Your task to perform on an android device: open app "Google Home" (install if not already installed) Image 0: 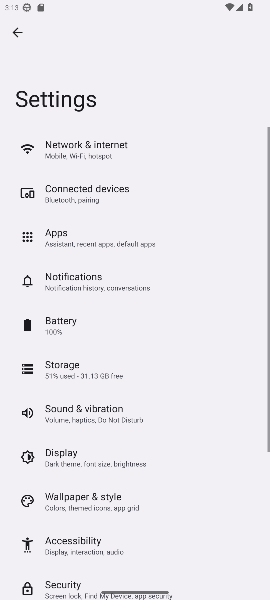
Step 0: press home button
Your task to perform on an android device: open app "Google Home" (install if not already installed) Image 1: 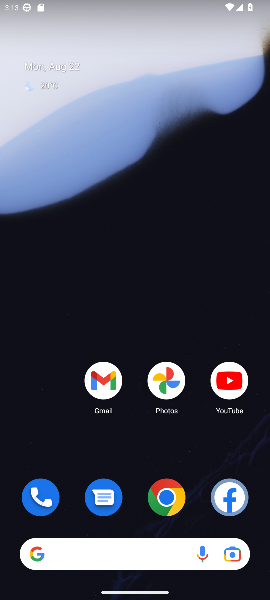
Step 1: drag from (31, 398) to (43, 109)
Your task to perform on an android device: open app "Google Home" (install if not already installed) Image 2: 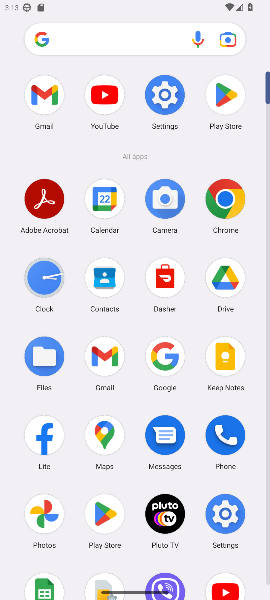
Step 2: click (224, 99)
Your task to perform on an android device: open app "Google Home" (install if not already installed) Image 3: 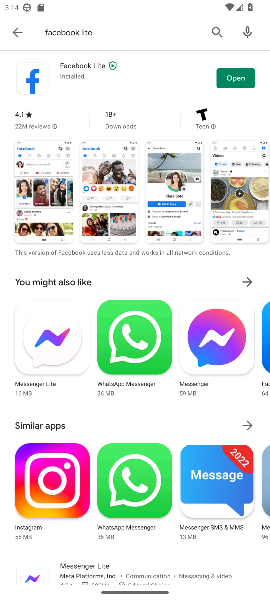
Step 3: press back button
Your task to perform on an android device: open app "Google Home" (install if not already installed) Image 4: 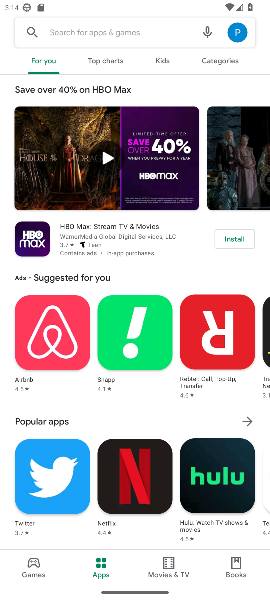
Step 4: click (143, 31)
Your task to perform on an android device: open app "Google Home" (install if not already installed) Image 5: 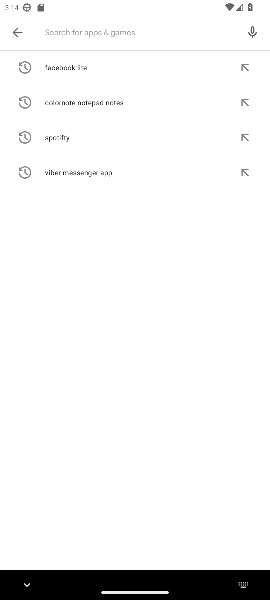
Step 5: type "google home"
Your task to perform on an android device: open app "Google Home" (install if not already installed) Image 6: 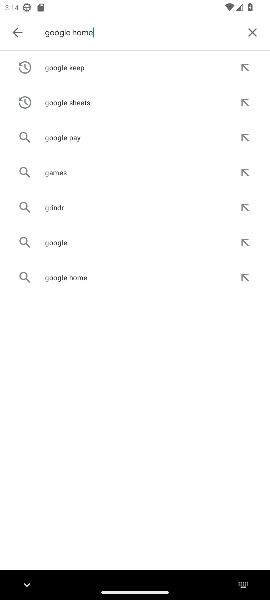
Step 6: press enter
Your task to perform on an android device: open app "Google Home" (install if not already installed) Image 7: 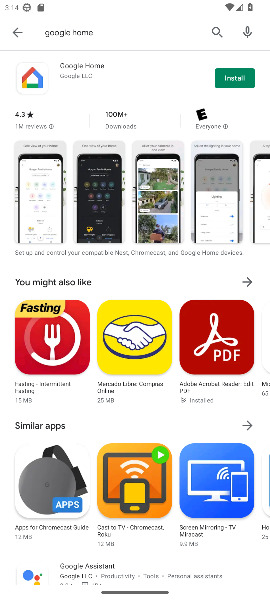
Step 7: click (248, 78)
Your task to perform on an android device: open app "Google Home" (install if not already installed) Image 8: 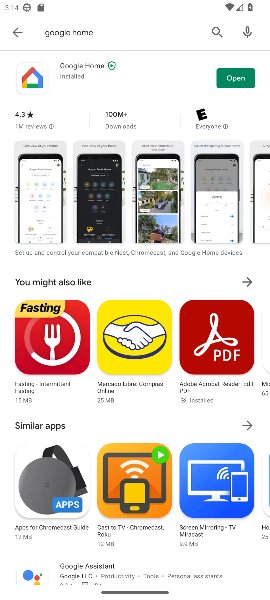
Step 8: click (235, 77)
Your task to perform on an android device: open app "Google Home" (install if not already installed) Image 9: 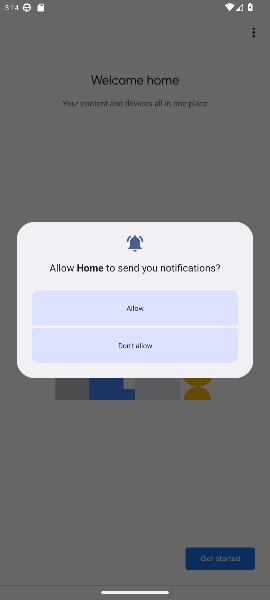
Step 9: click (166, 346)
Your task to perform on an android device: open app "Google Home" (install if not already installed) Image 10: 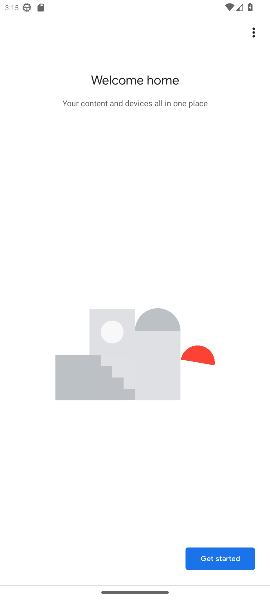
Step 10: task complete